Your task to perform on an android device: Open privacy settings Image 0: 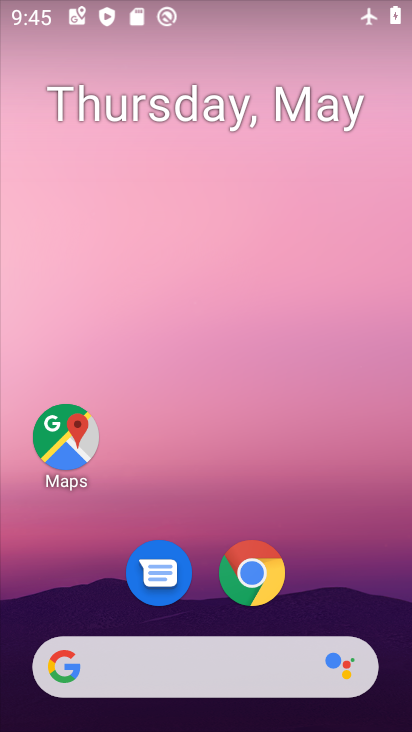
Step 0: click (266, 566)
Your task to perform on an android device: Open privacy settings Image 1: 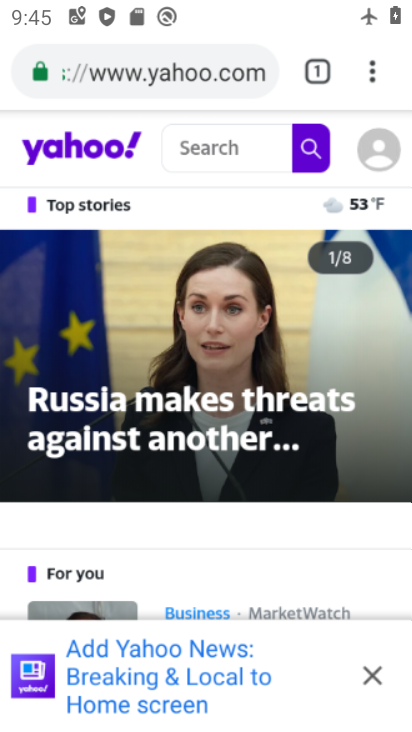
Step 1: press home button
Your task to perform on an android device: Open privacy settings Image 2: 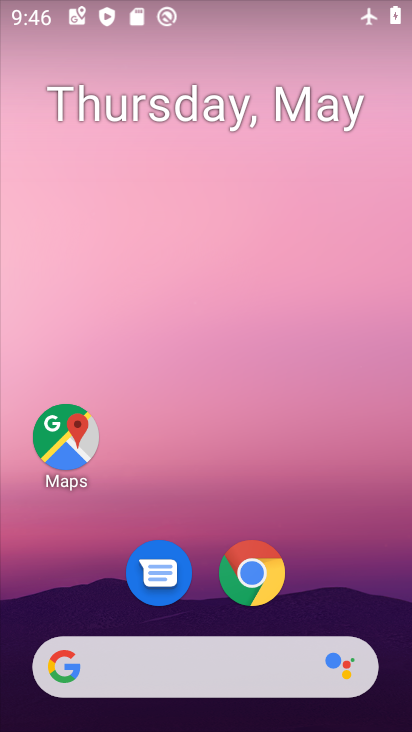
Step 2: drag from (207, 607) to (212, 189)
Your task to perform on an android device: Open privacy settings Image 3: 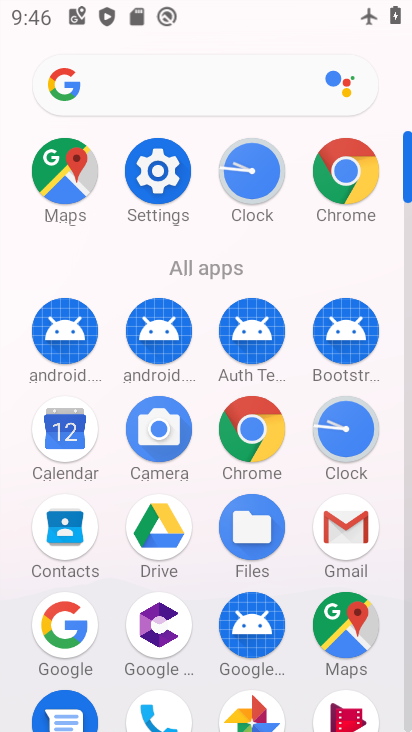
Step 3: click (172, 163)
Your task to perform on an android device: Open privacy settings Image 4: 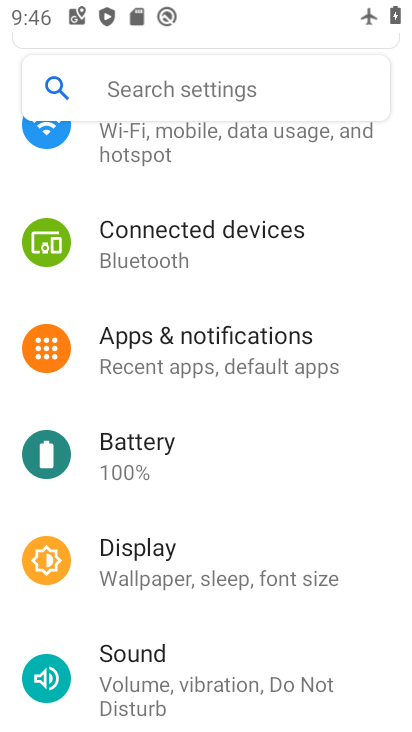
Step 4: drag from (238, 634) to (273, 206)
Your task to perform on an android device: Open privacy settings Image 5: 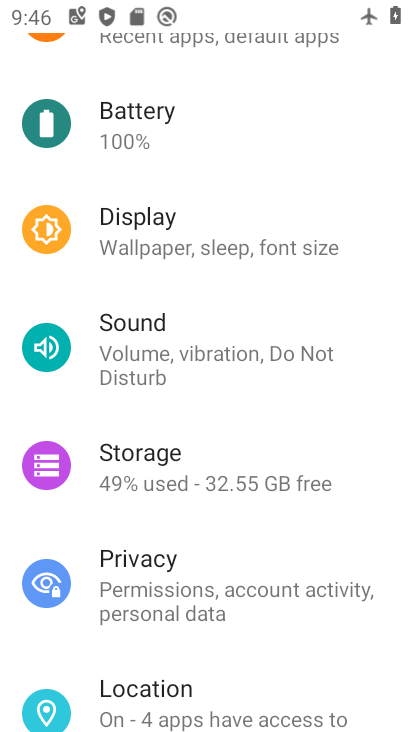
Step 5: click (215, 579)
Your task to perform on an android device: Open privacy settings Image 6: 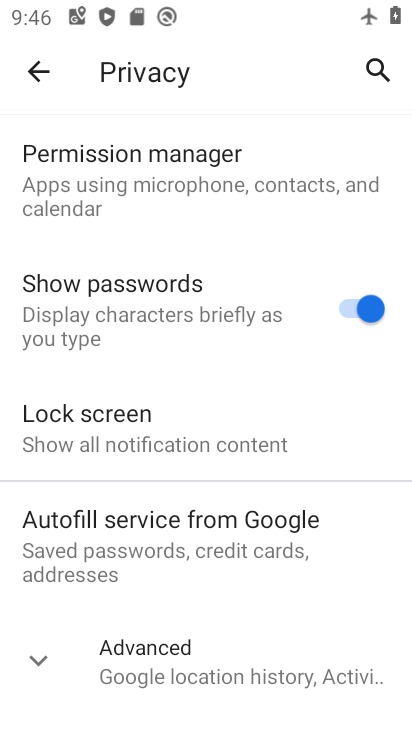
Step 6: task complete